Your task to perform on an android device: Go to Google Image 0: 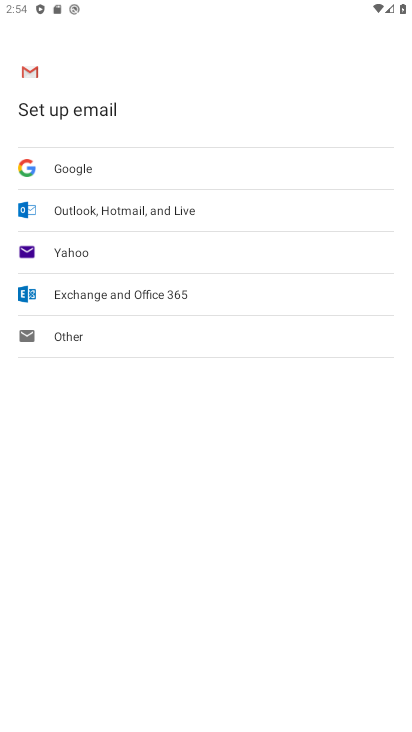
Step 0: press back button
Your task to perform on an android device: Go to Google Image 1: 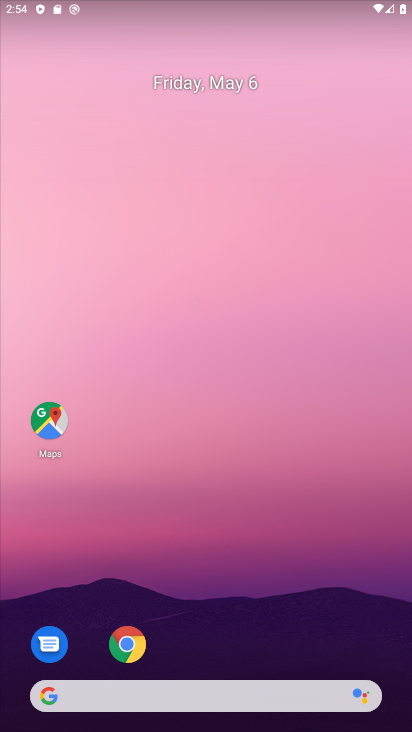
Step 1: drag from (200, 595) to (189, 48)
Your task to perform on an android device: Go to Google Image 2: 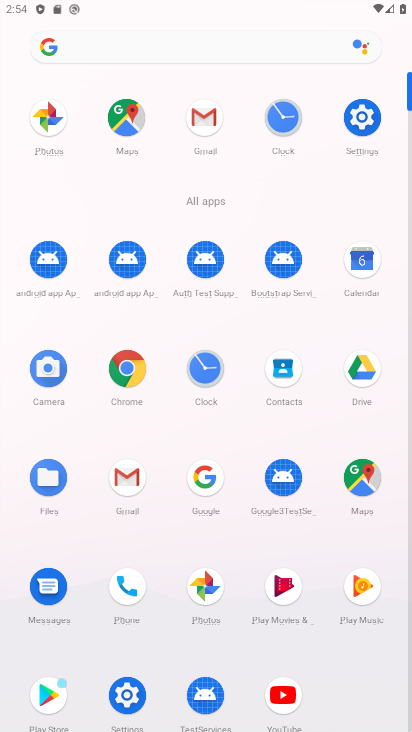
Step 2: click (204, 473)
Your task to perform on an android device: Go to Google Image 3: 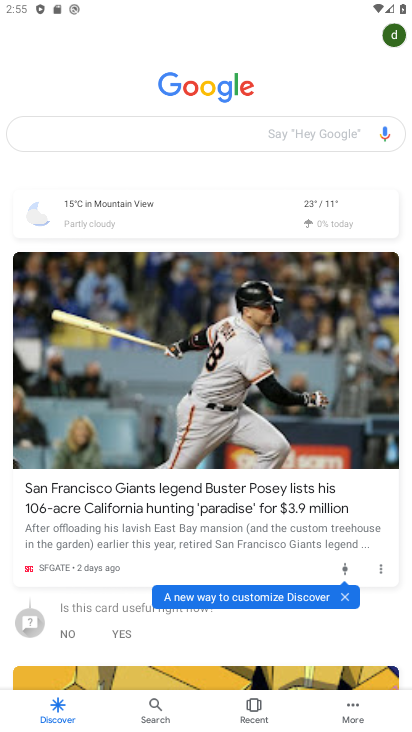
Step 3: task complete